Your task to perform on an android device: Go to Yahoo.com Image 0: 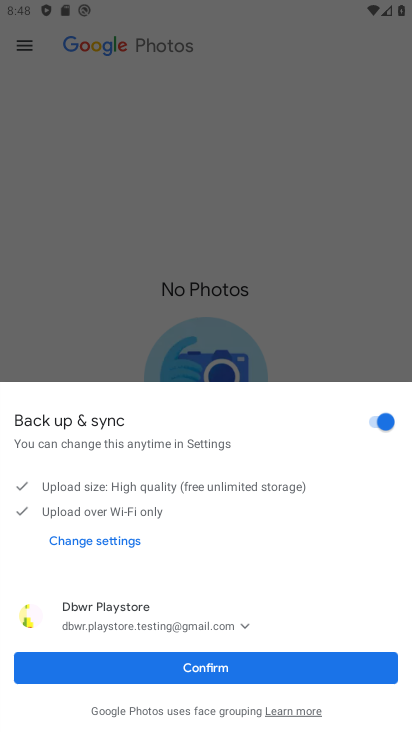
Step 0: press home button
Your task to perform on an android device: Go to Yahoo.com Image 1: 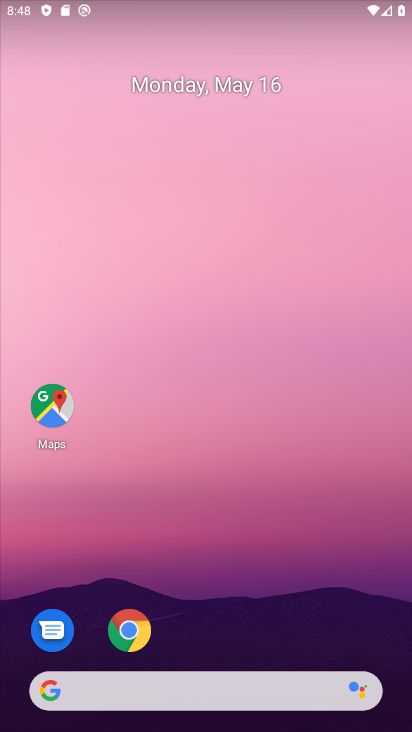
Step 1: click (132, 648)
Your task to perform on an android device: Go to Yahoo.com Image 2: 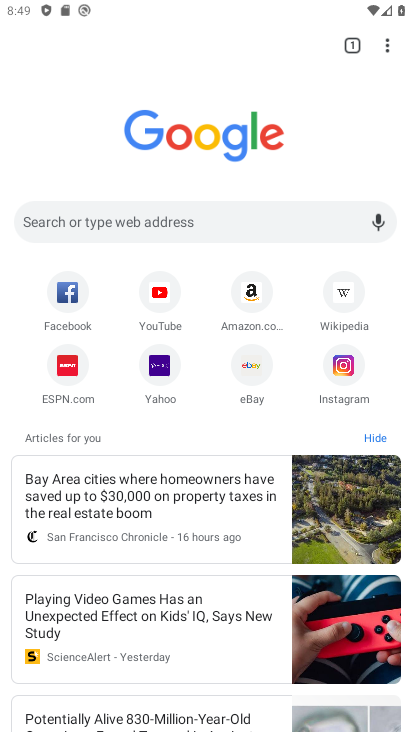
Step 2: click (153, 374)
Your task to perform on an android device: Go to Yahoo.com Image 3: 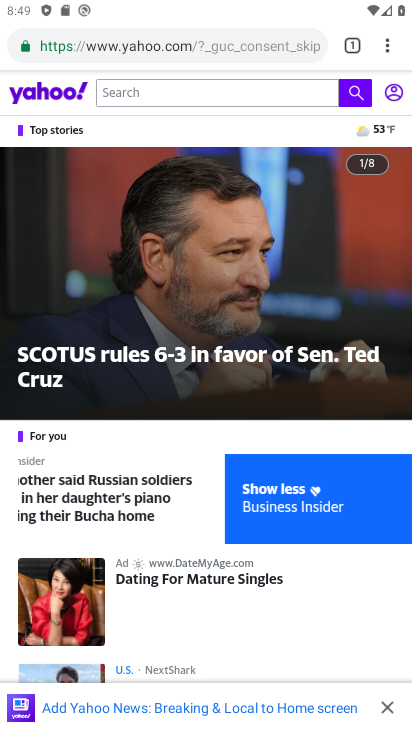
Step 3: task complete